Your task to perform on an android device: empty trash in the gmail app Image 0: 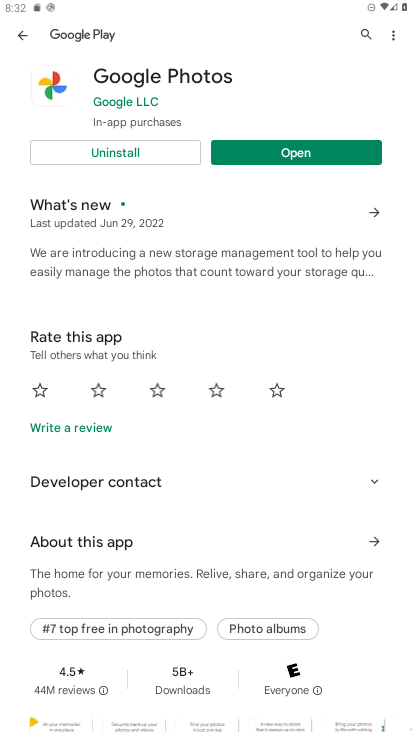
Step 0: press home button
Your task to perform on an android device: empty trash in the gmail app Image 1: 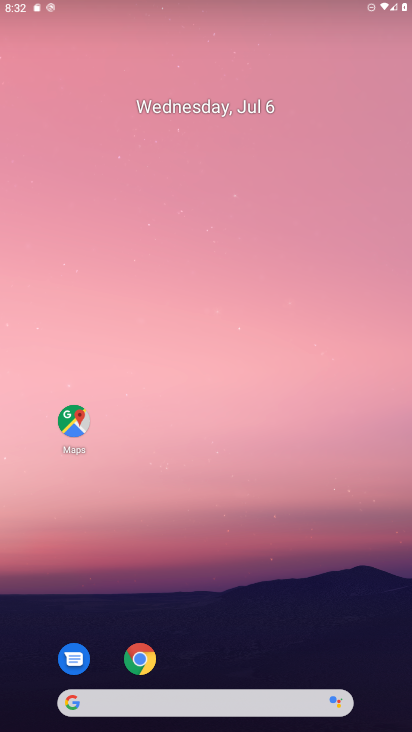
Step 1: drag from (214, 667) to (233, 107)
Your task to perform on an android device: empty trash in the gmail app Image 2: 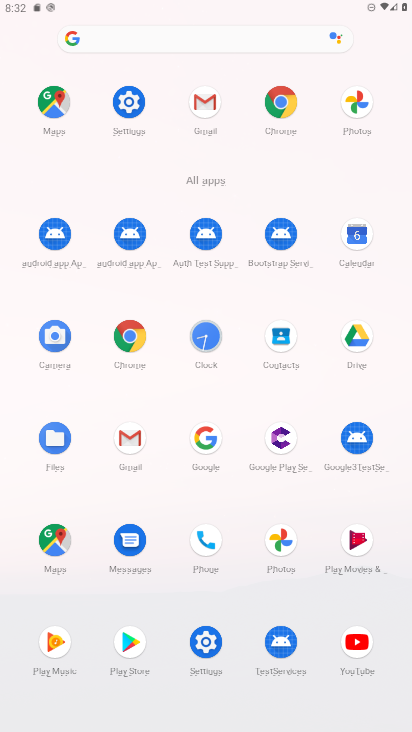
Step 2: click (212, 128)
Your task to perform on an android device: empty trash in the gmail app Image 3: 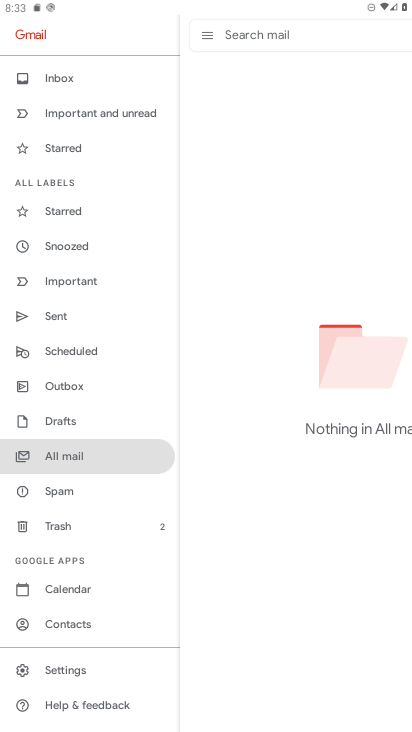
Step 3: click (85, 522)
Your task to perform on an android device: empty trash in the gmail app Image 4: 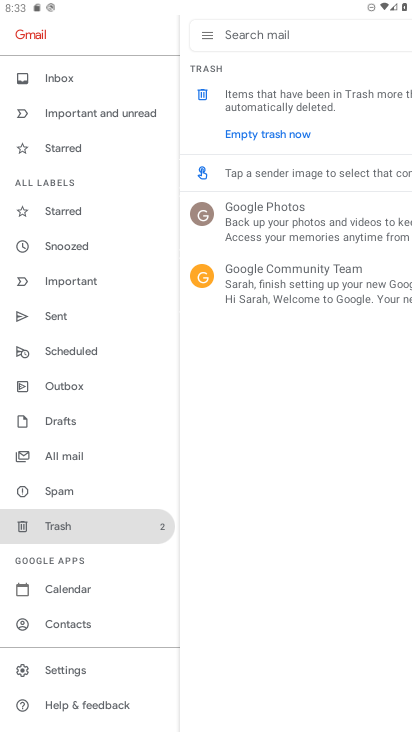
Step 4: click (282, 136)
Your task to perform on an android device: empty trash in the gmail app Image 5: 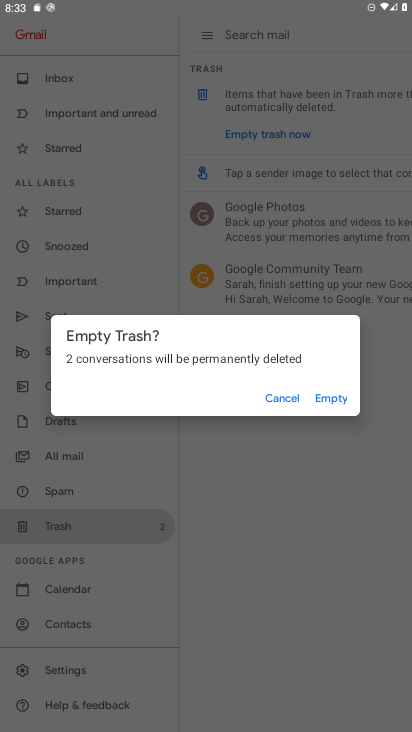
Step 5: click (330, 401)
Your task to perform on an android device: empty trash in the gmail app Image 6: 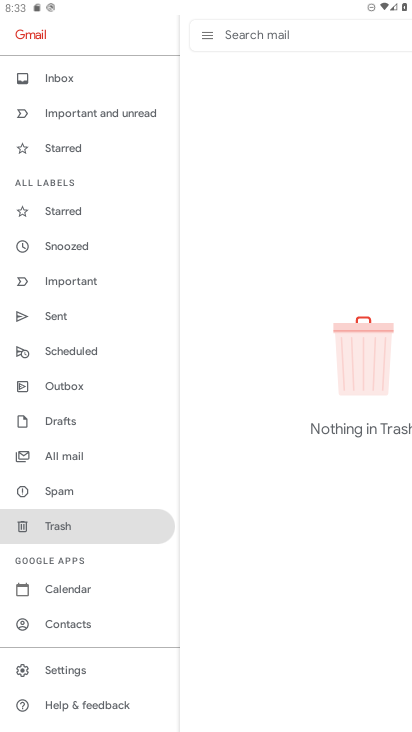
Step 6: task complete